Your task to perform on an android device: Clear all items from cart on walmart.com. Search for usb-b on walmart.com, select the first entry, and add it to the cart. Image 0: 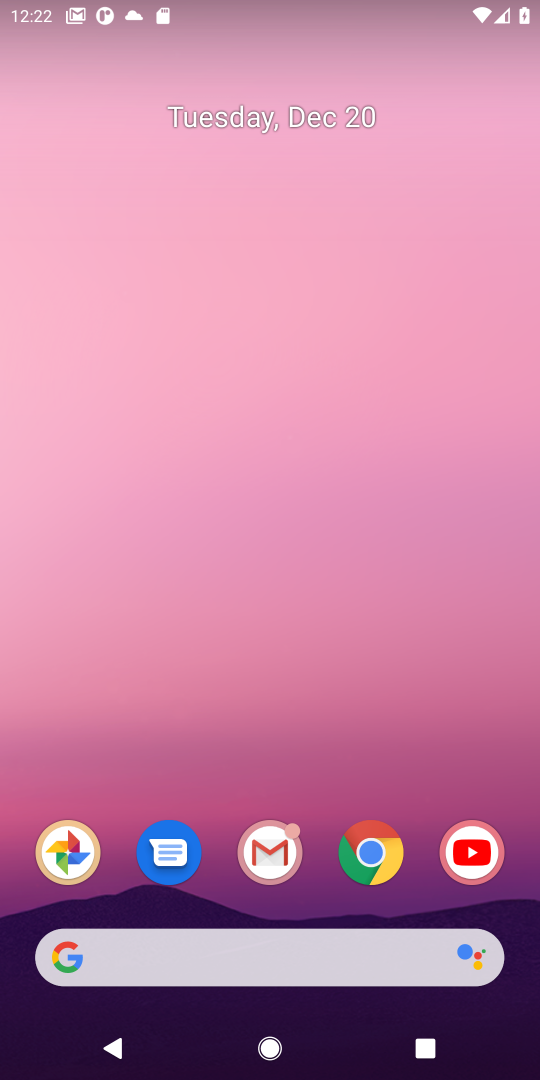
Step 0: click (362, 857)
Your task to perform on an android device: Clear all items from cart on walmart.com. Search for usb-b on walmart.com, select the first entry, and add it to the cart. Image 1: 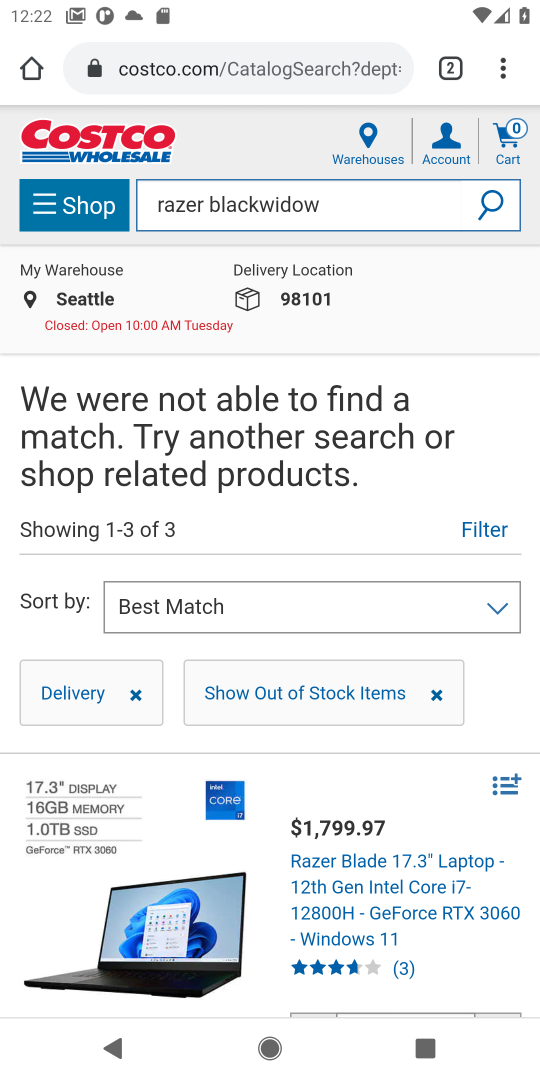
Step 1: click (207, 69)
Your task to perform on an android device: Clear all items from cart on walmart.com. Search for usb-b on walmart.com, select the first entry, and add it to the cart. Image 2: 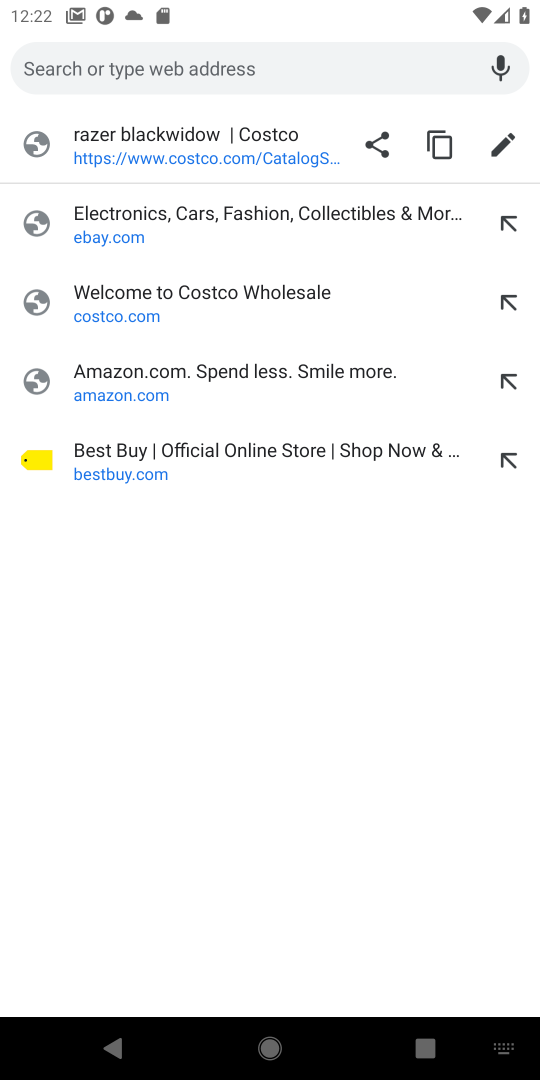
Step 2: type "walmart.com"
Your task to perform on an android device: Clear all items from cart on walmart.com. Search for usb-b on walmart.com, select the first entry, and add it to the cart. Image 3: 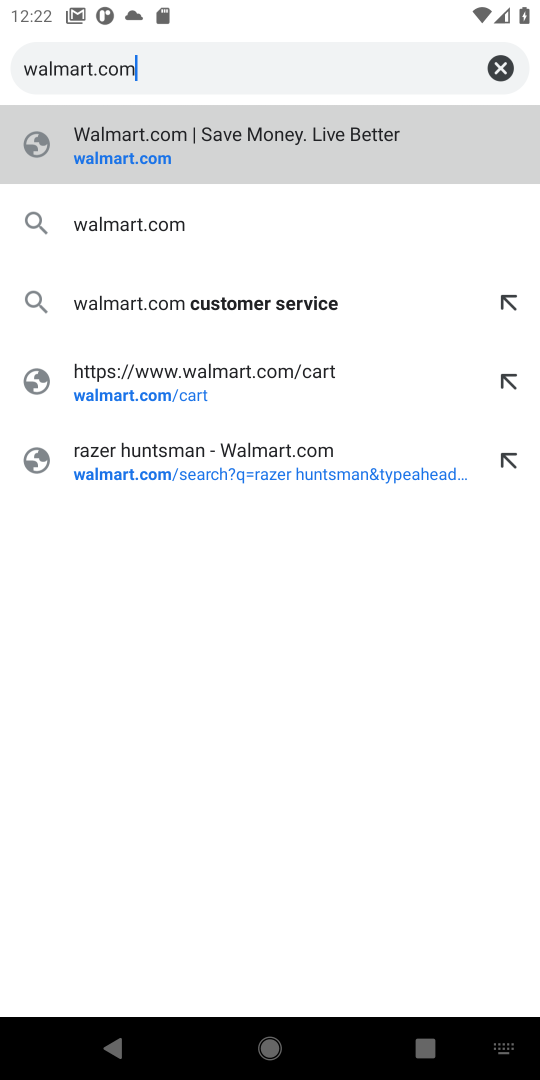
Step 3: click (103, 153)
Your task to perform on an android device: Clear all items from cart on walmart.com. Search for usb-b on walmart.com, select the first entry, and add it to the cart. Image 4: 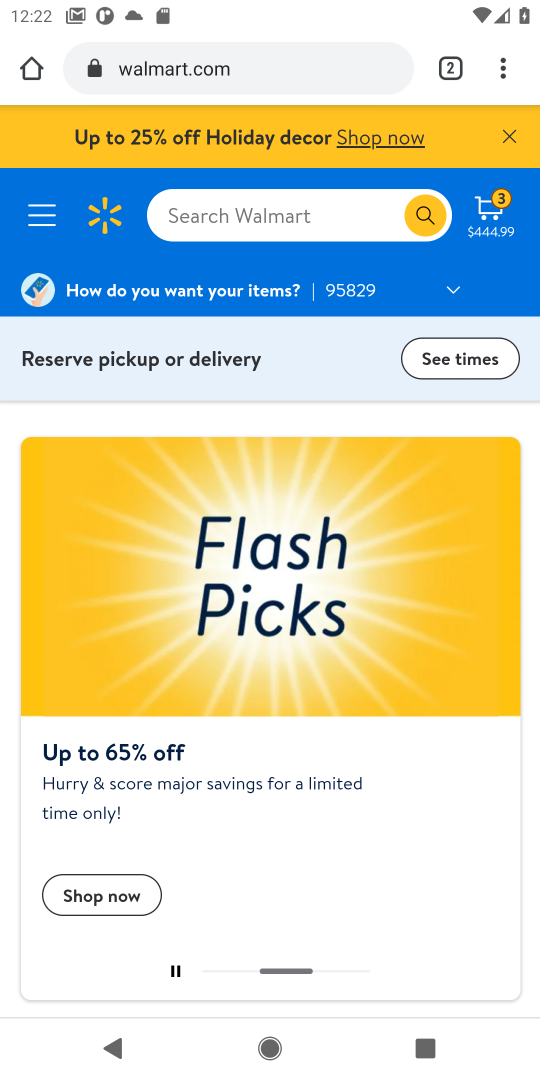
Step 4: click (493, 221)
Your task to perform on an android device: Clear all items from cart on walmart.com. Search for usb-b on walmart.com, select the first entry, and add it to the cart. Image 5: 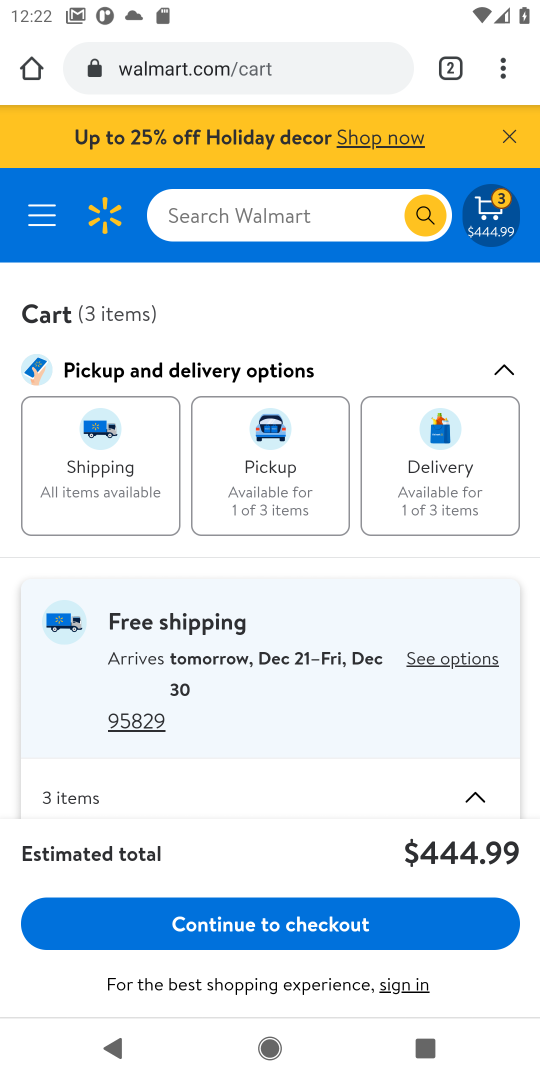
Step 5: drag from (338, 636) to (349, 383)
Your task to perform on an android device: Clear all items from cart on walmart.com. Search for usb-b on walmart.com, select the first entry, and add it to the cart. Image 6: 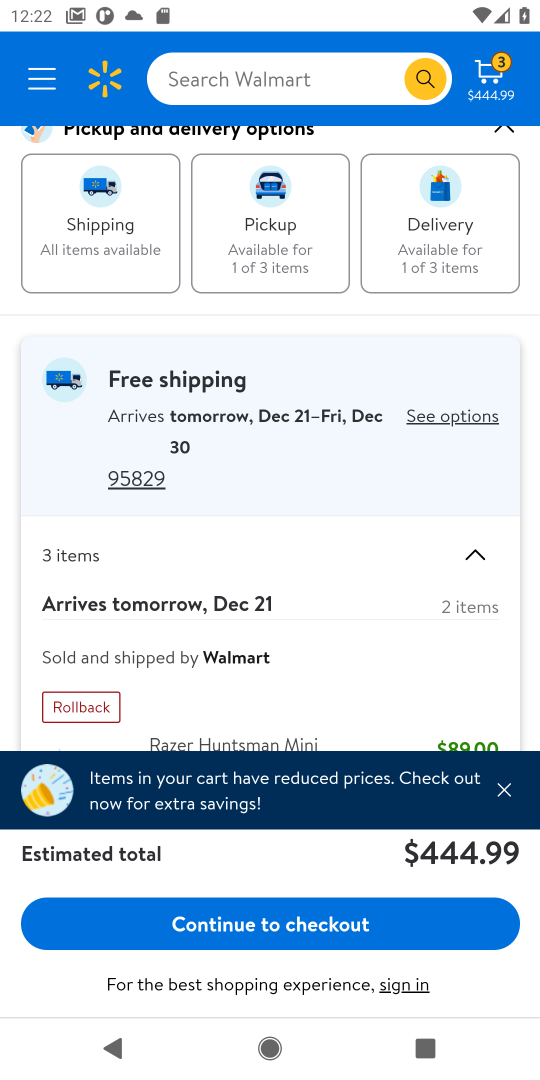
Step 6: drag from (353, 679) to (353, 488)
Your task to perform on an android device: Clear all items from cart on walmart.com. Search for usb-b on walmart.com, select the first entry, and add it to the cart. Image 7: 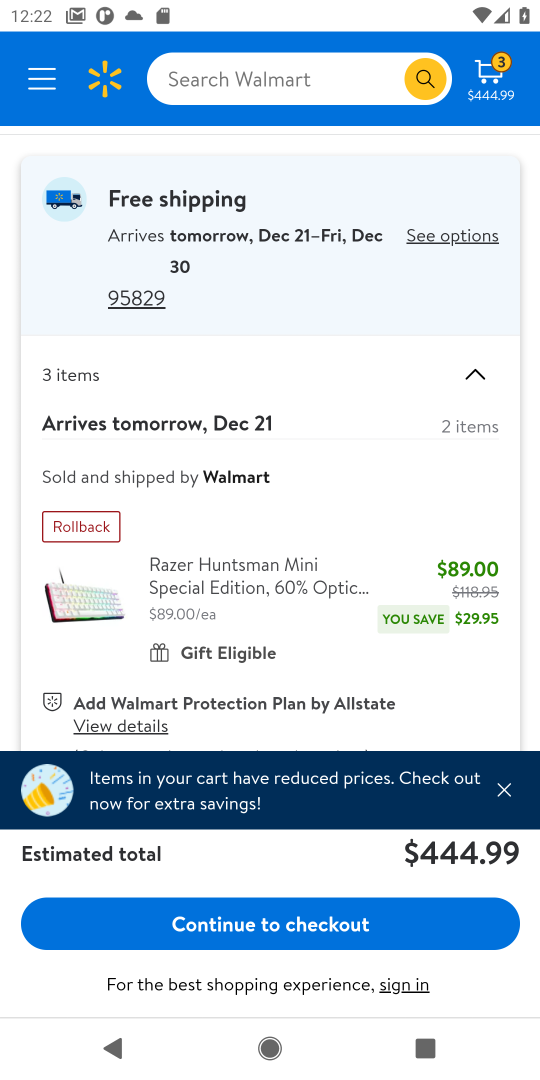
Step 7: drag from (358, 668) to (347, 333)
Your task to perform on an android device: Clear all items from cart on walmart.com. Search for usb-b on walmart.com, select the first entry, and add it to the cart. Image 8: 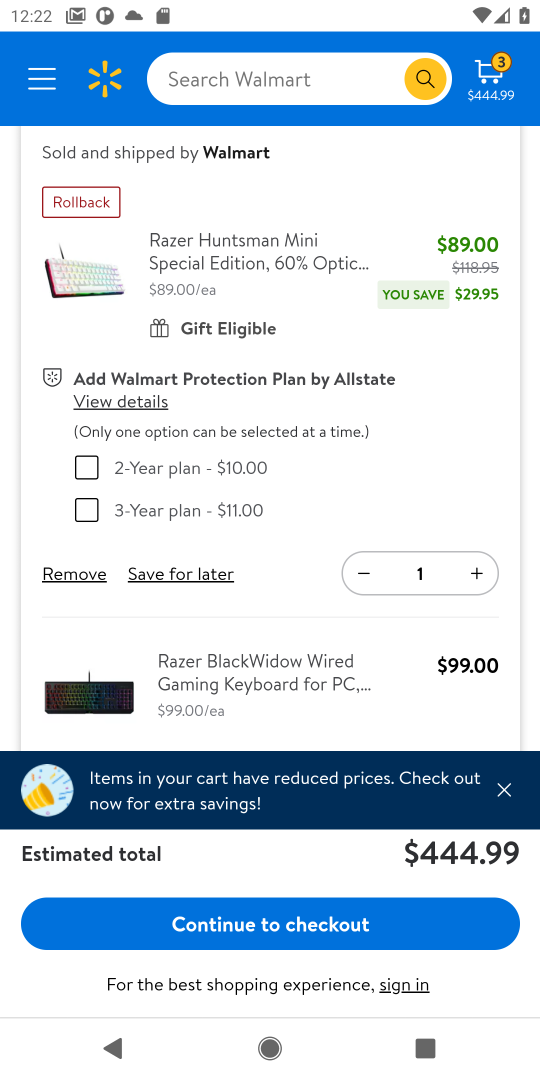
Step 8: click (57, 580)
Your task to perform on an android device: Clear all items from cart on walmart.com. Search for usb-b on walmart.com, select the first entry, and add it to the cart. Image 9: 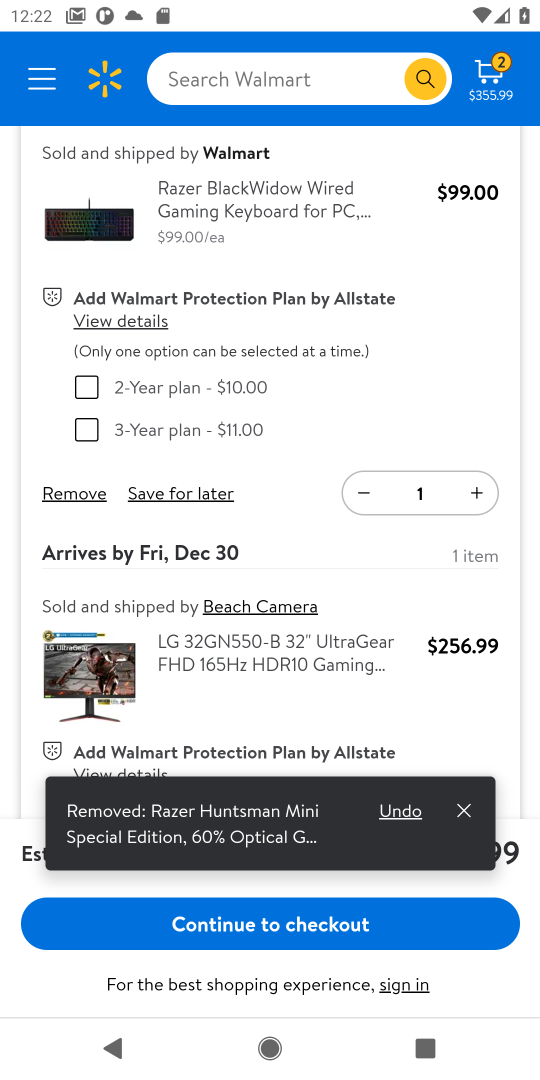
Step 9: click (65, 485)
Your task to perform on an android device: Clear all items from cart on walmart.com. Search for usb-b on walmart.com, select the first entry, and add it to the cart. Image 10: 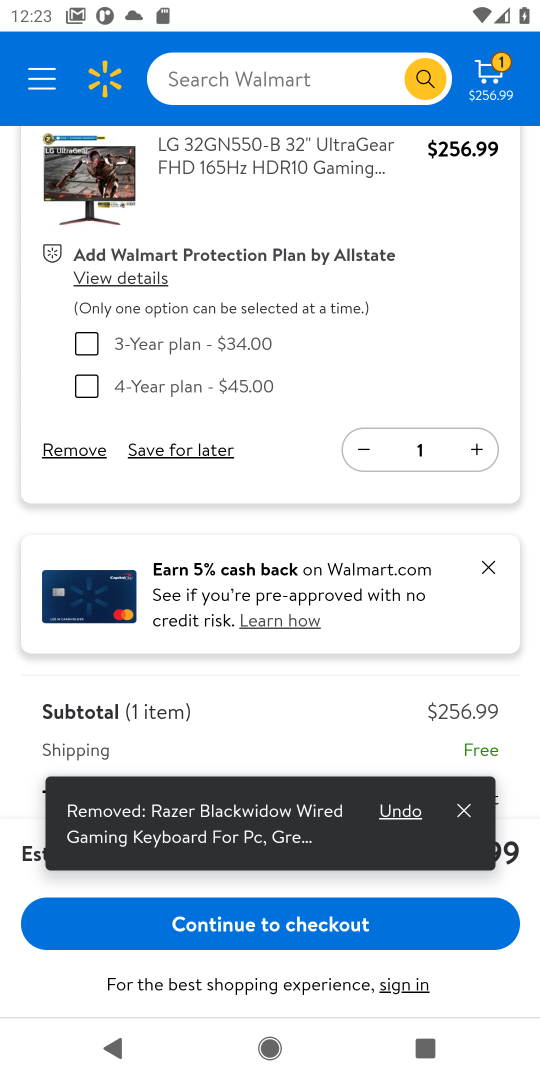
Step 10: click (71, 457)
Your task to perform on an android device: Clear all items from cart on walmart.com. Search for usb-b on walmart.com, select the first entry, and add it to the cart. Image 11: 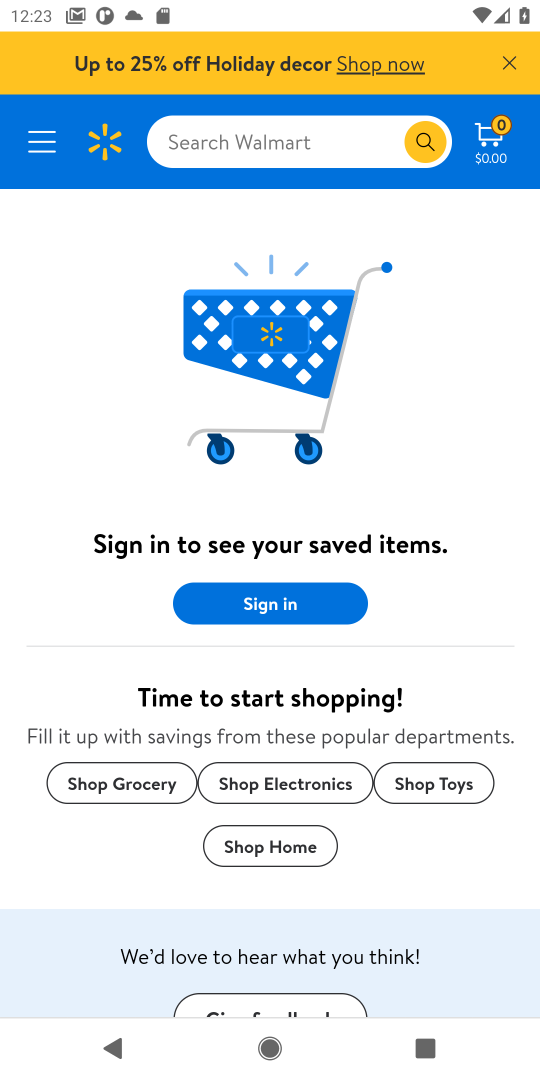
Step 11: click (222, 153)
Your task to perform on an android device: Clear all items from cart on walmart.com. Search for usb-b on walmart.com, select the first entry, and add it to the cart. Image 12: 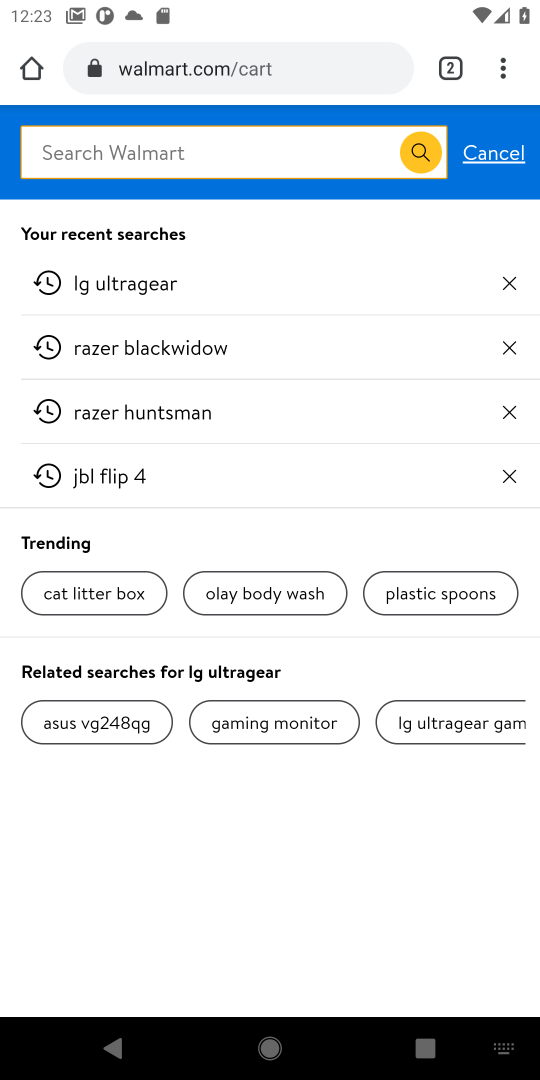
Step 12: type "usb-b"
Your task to perform on an android device: Clear all items from cart on walmart.com. Search for usb-b on walmart.com, select the first entry, and add it to the cart. Image 13: 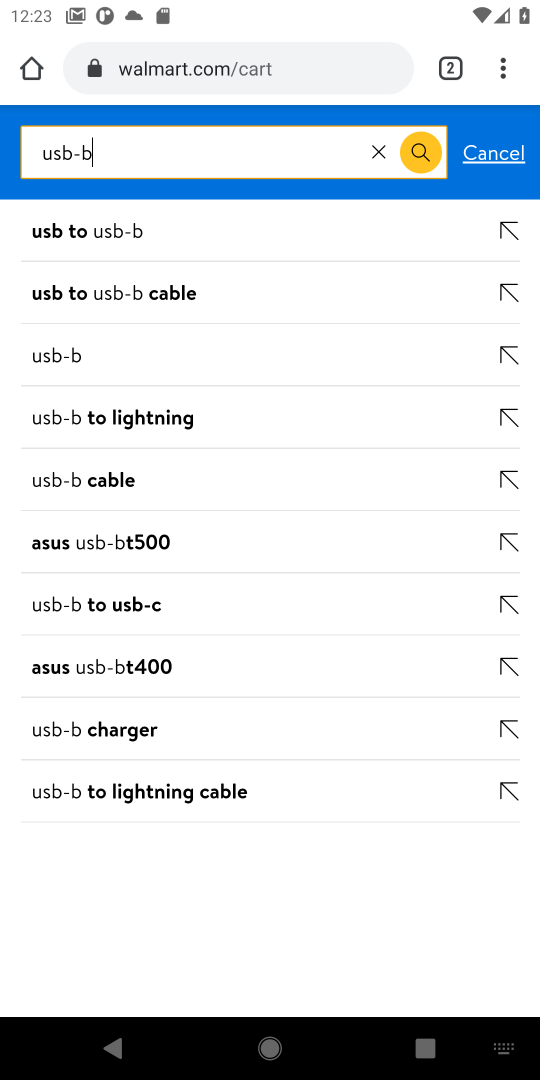
Step 13: click (71, 358)
Your task to perform on an android device: Clear all items from cart on walmart.com. Search for usb-b on walmart.com, select the first entry, and add it to the cart. Image 14: 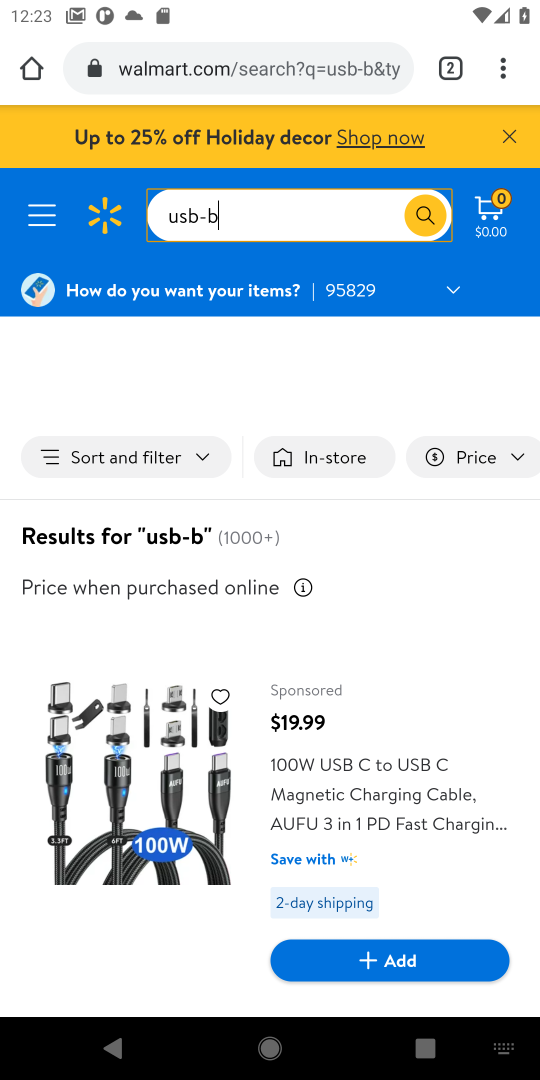
Step 14: task complete